Your task to perform on an android device: check the backup settings in the google photos Image 0: 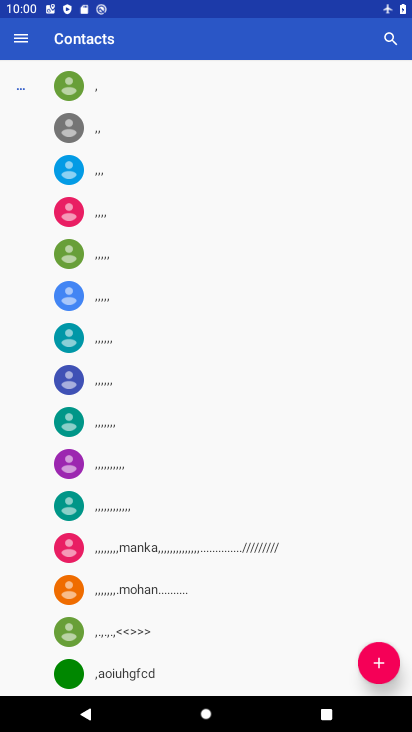
Step 0: press home button
Your task to perform on an android device: check the backup settings in the google photos Image 1: 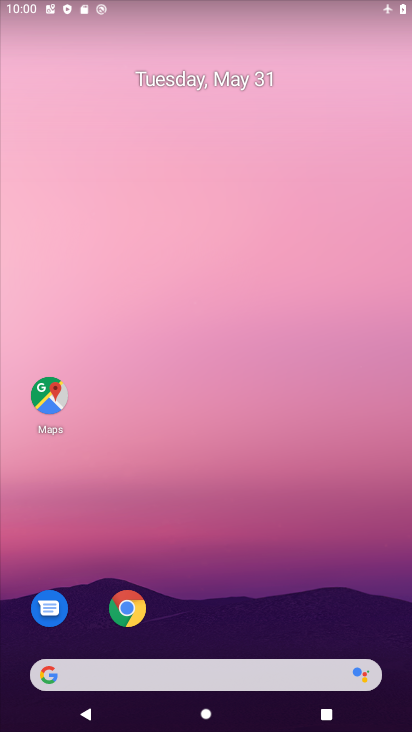
Step 1: drag from (168, 403) to (197, 16)
Your task to perform on an android device: check the backup settings in the google photos Image 2: 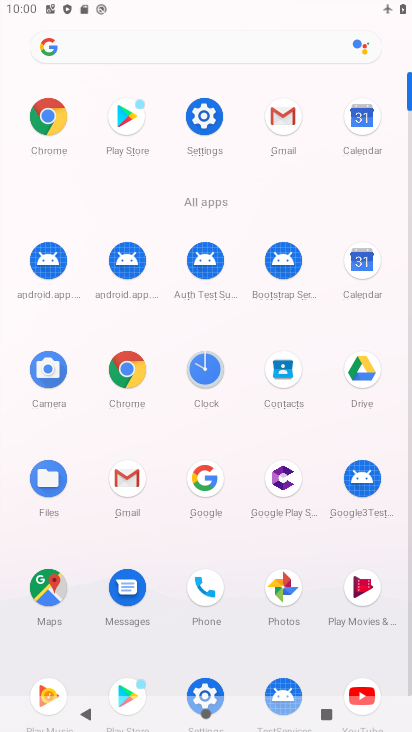
Step 2: click (277, 584)
Your task to perform on an android device: check the backup settings in the google photos Image 3: 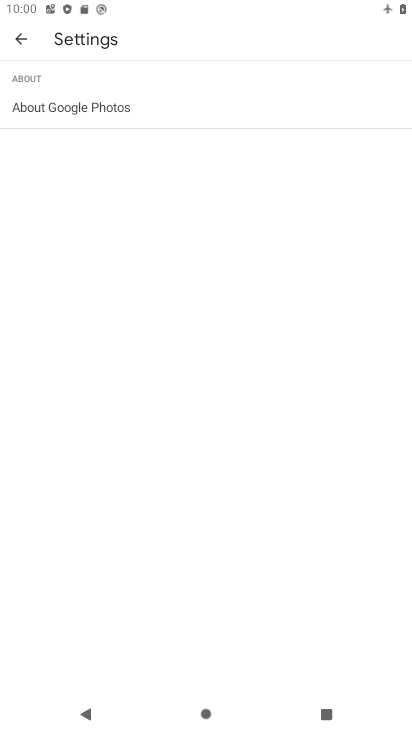
Step 3: click (15, 36)
Your task to perform on an android device: check the backup settings in the google photos Image 4: 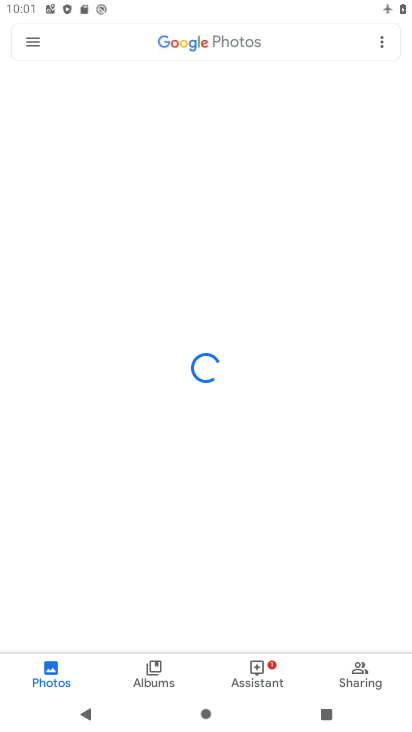
Step 4: click (32, 28)
Your task to perform on an android device: check the backup settings in the google photos Image 5: 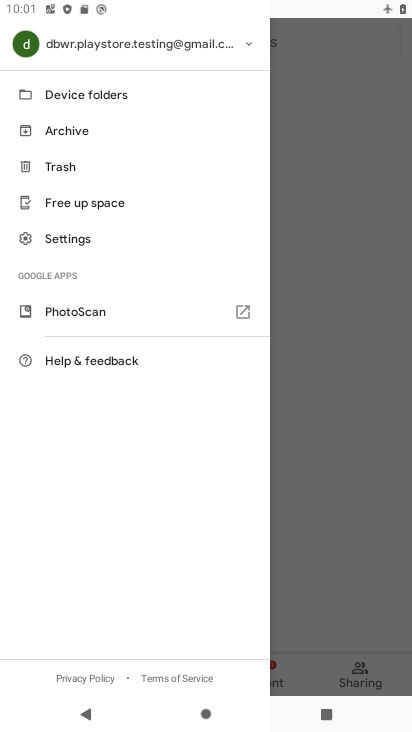
Step 5: click (70, 238)
Your task to perform on an android device: check the backup settings in the google photos Image 6: 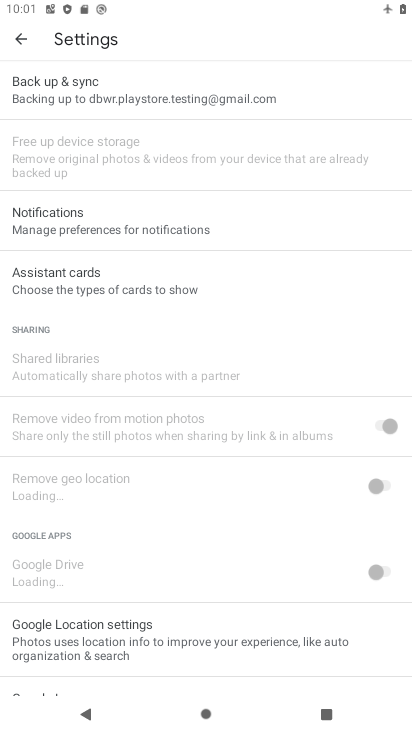
Step 6: click (67, 106)
Your task to perform on an android device: check the backup settings in the google photos Image 7: 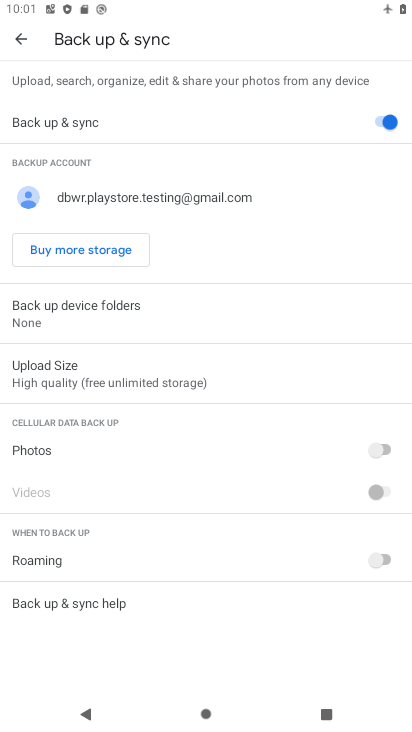
Step 7: task complete